Your task to perform on an android device: Show me recent news Image 0: 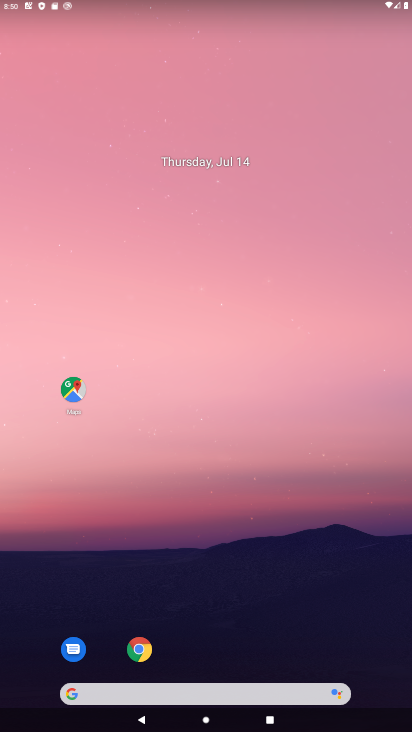
Step 0: click (93, 699)
Your task to perform on an android device: Show me recent news Image 1: 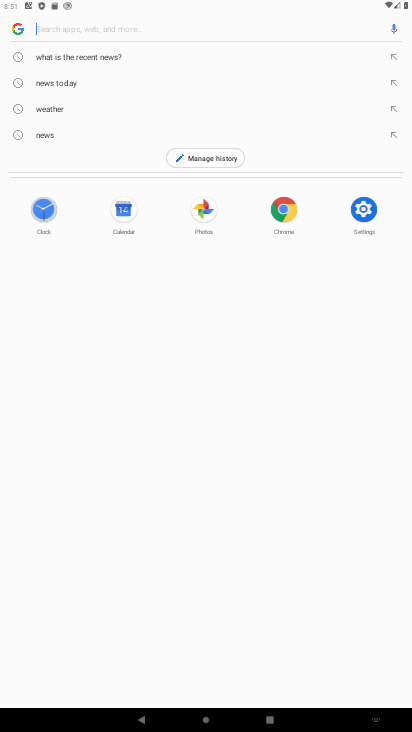
Step 1: click (118, 49)
Your task to perform on an android device: Show me recent news Image 2: 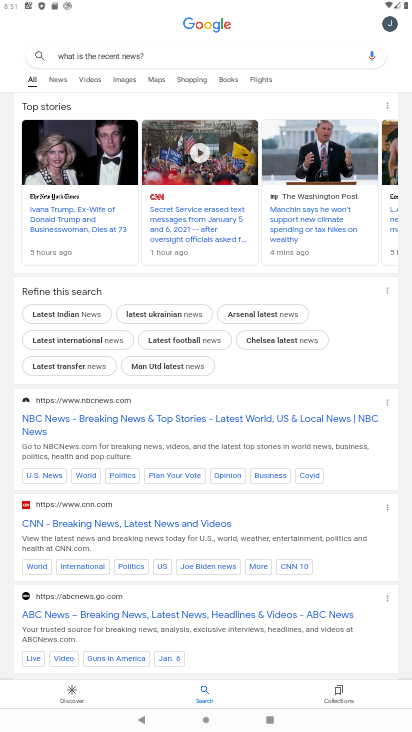
Step 2: task complete